Your task to perform on an android device: toggle translation in the chrome app Image 0: 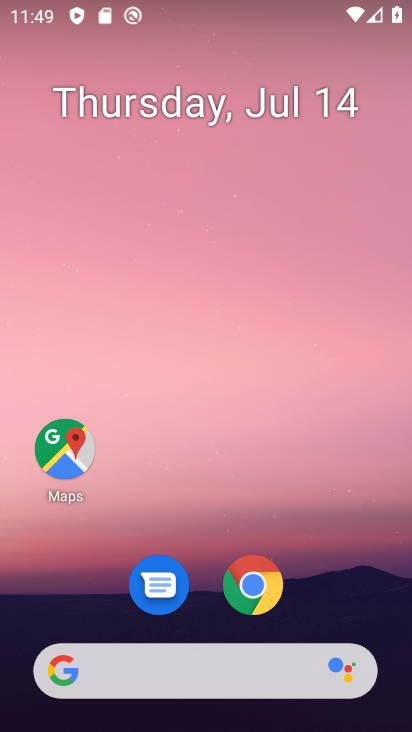
Step 0: click (252, 577)
Your task to perform on an android device: toggle translation in the chrome app Image 1: 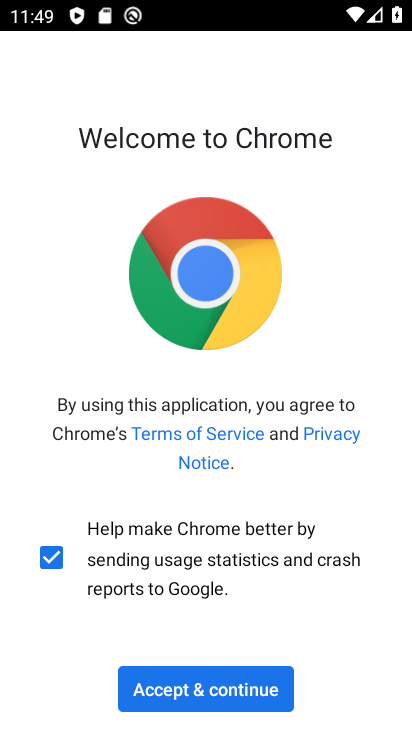
Step 1: click (235, 690)
Your task to perform on an android device: toggle translation in the chrome app Image 2: 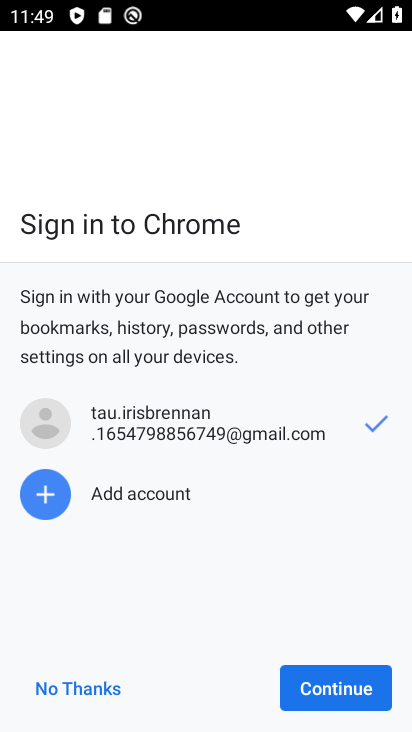
Step 2: click (300, 690)
Your task to perform on an android device: toggle translation in the chrome app Image 3: 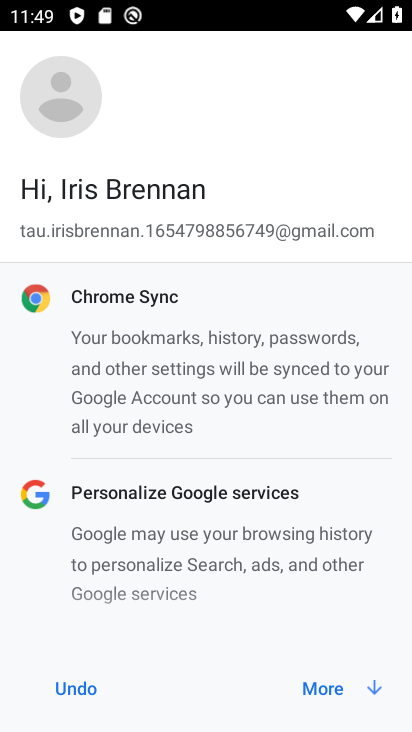
Step 3: click (300, 690)
Your task to perform on an android device: toggle translation in the chrome app Image 4: 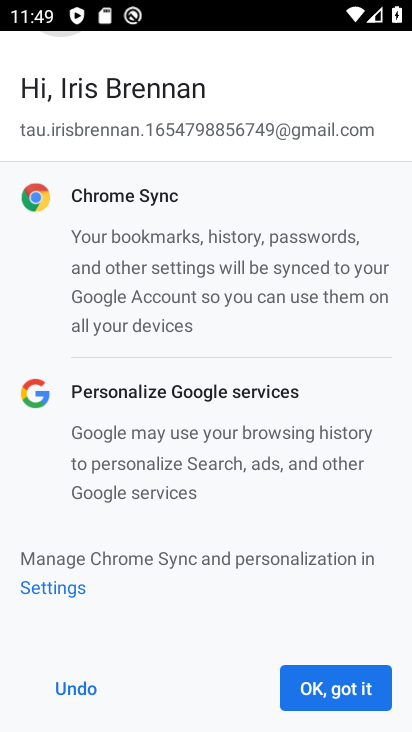
Step 4: click (300, 690)
Your task to perform on an android device: toggle translation in the chrome app Image 5: 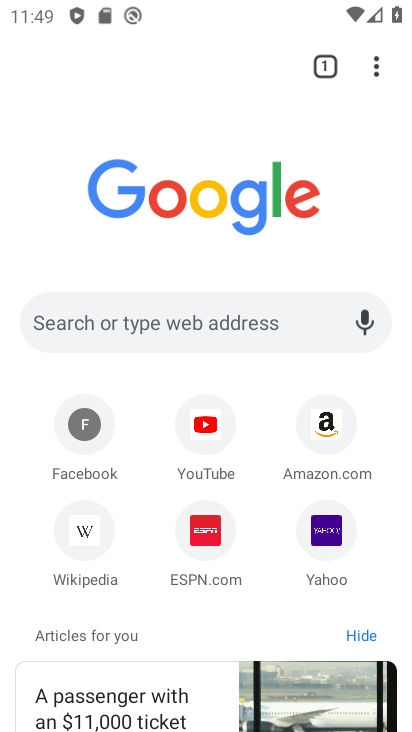
Step 5: click (371, 81)
Your task to perform on an android device: toggle translation in the chrome app Image 6: 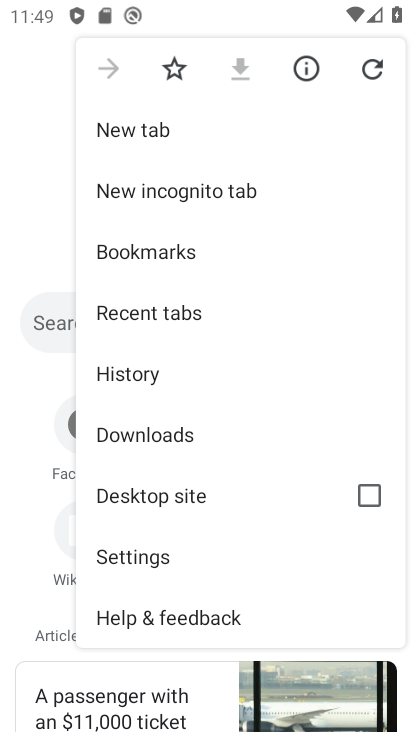
Step 6: click (163, 563)
Your task to perform on an android device: toggle translation in the chrome app Image 7: 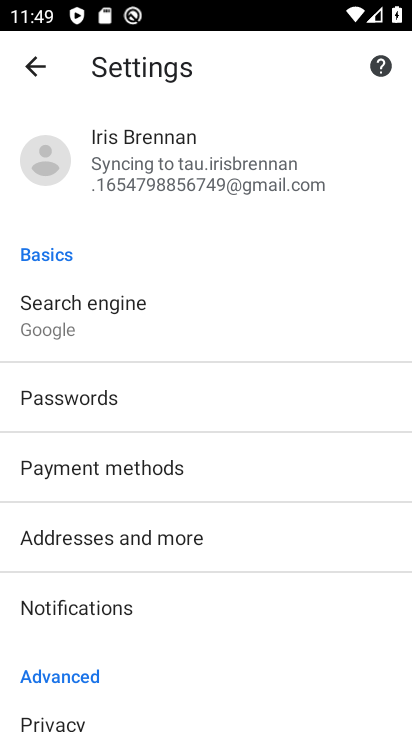
Step 7: drag from (200, 626) to (229, 255)
Your task to perform on an android device: toggle translation in the chrome app Image 8: 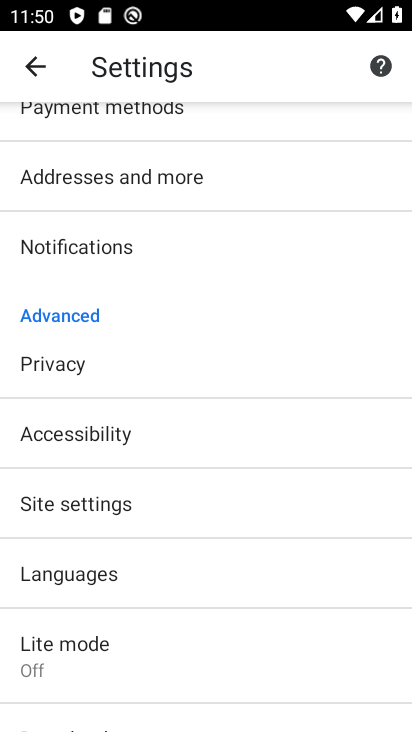
Step 8: click (122, 508)
Your task to perform on an android device: toggle translation in the chrome app Image 9: 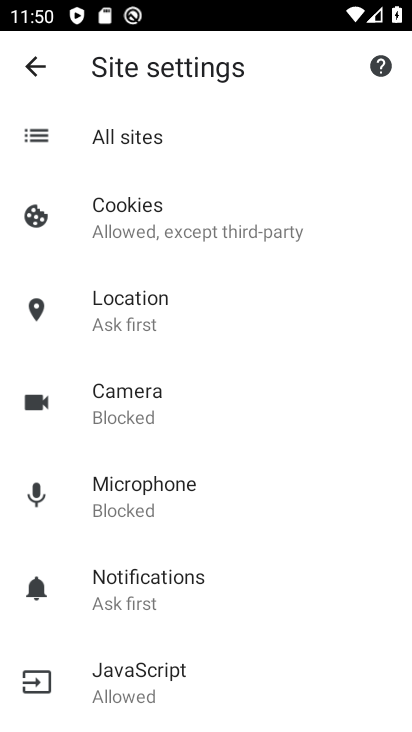
Step 9: click (49, 66)
Your task to perform on an android device: toggle translation in the chrome app Image 10: 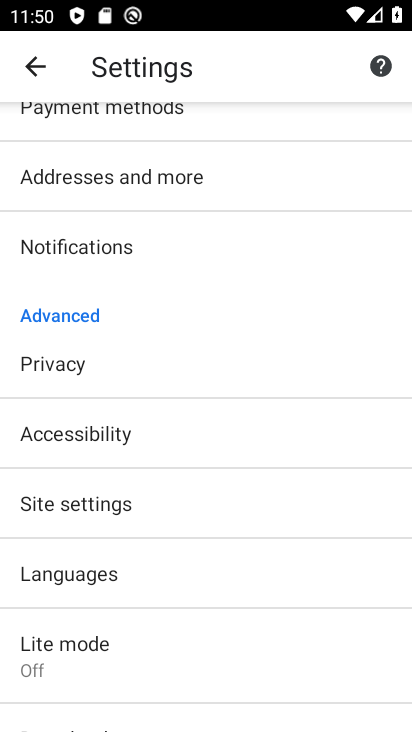
Step 10: click (198, 562)
Your task to perform on an android device: toggle translation in the chrome app Image 11: 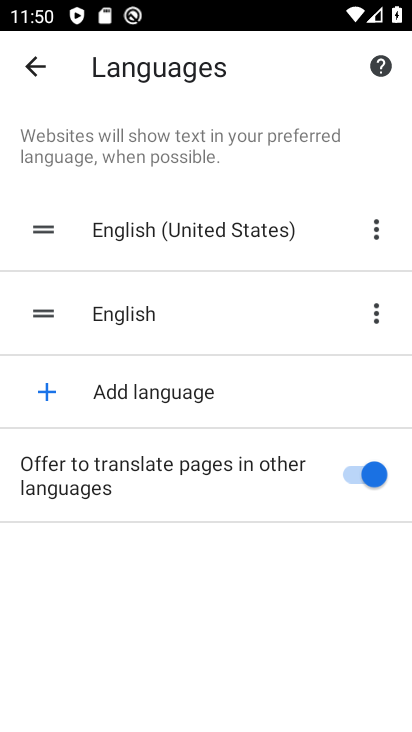
Step 11: click (361, 464)
Your task to perform on an android device: toggle translation in the chrome app Image 12: 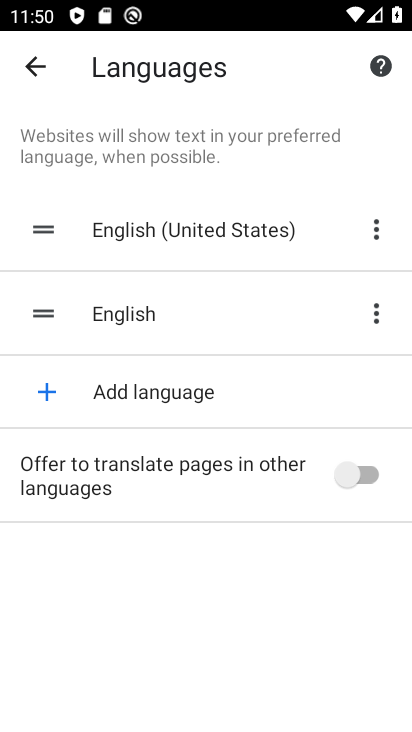
Step 12: task complete